Your task to perform on an android device: snooze an email in the gmail app Image 0: 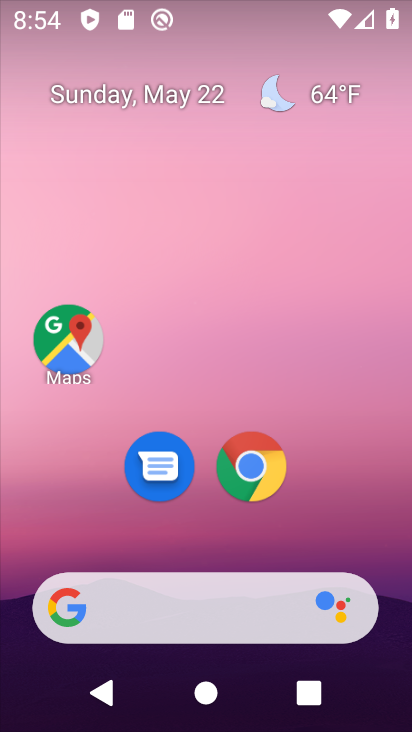
Step 0: drag from (304, 511) to (321, 86)
Your task to perform on an android device: snooze an email in the gmail app Image 1: 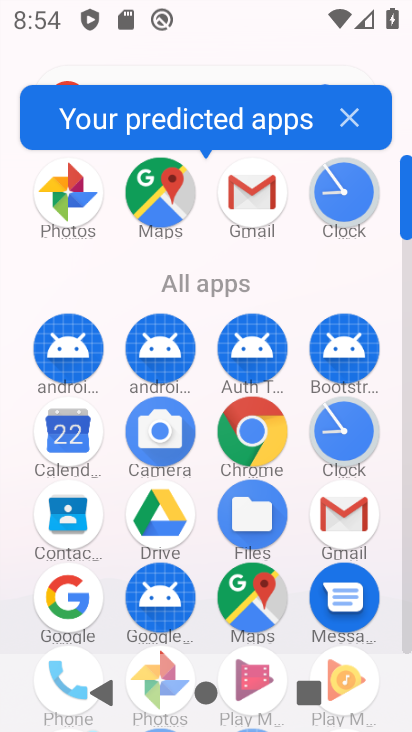
Step 1: click (258, 188)
Your task to perform on an android device: snooze an email in the gmail app Image 2: 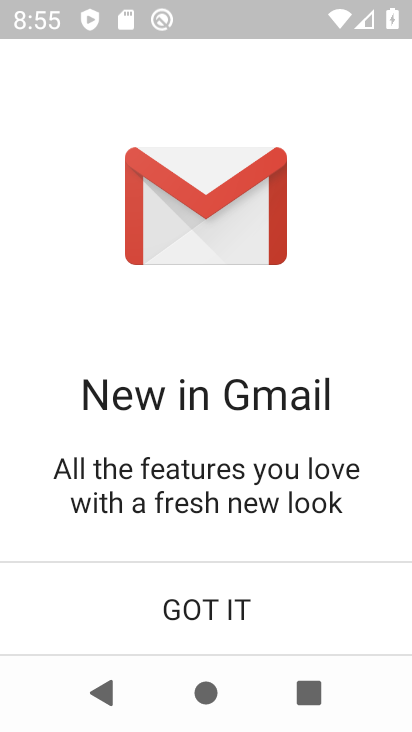
Step 2: click (189, 593)
Your task to perform on an android device: snooze an email in the gmail app Image 3: 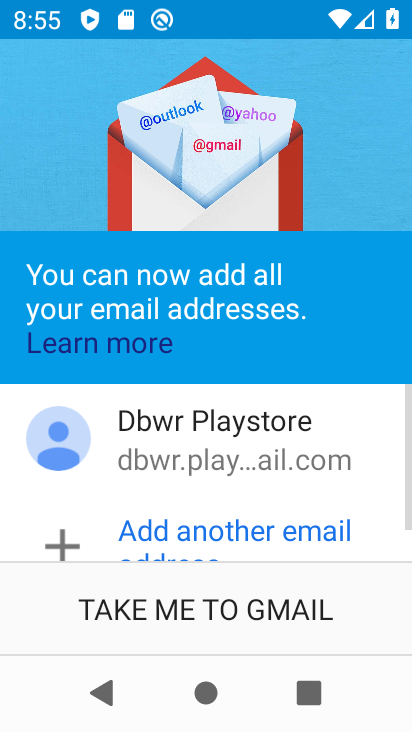
Step 3: click (141, 618)
Your task to perform on an android device: snooze an email in the gmail app Image 4: 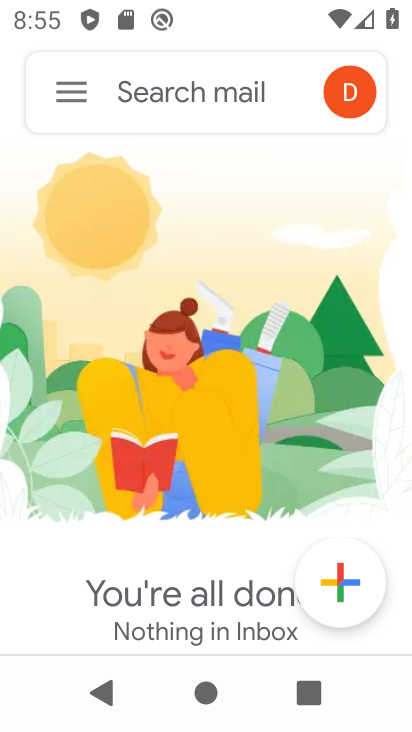
Step 4: task complete